Your task to perform on an android device: find snoozed emails in the gmail app Image 0: 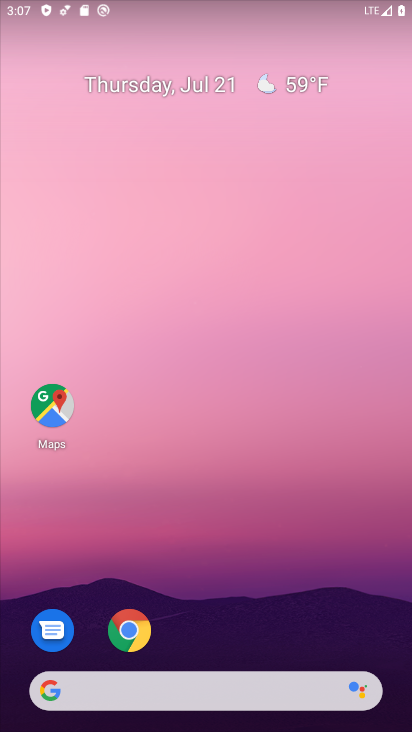
Step 0: click (218, 129)
Your task to perform on an android device: find snoozed emails in the gmail app Image 1: 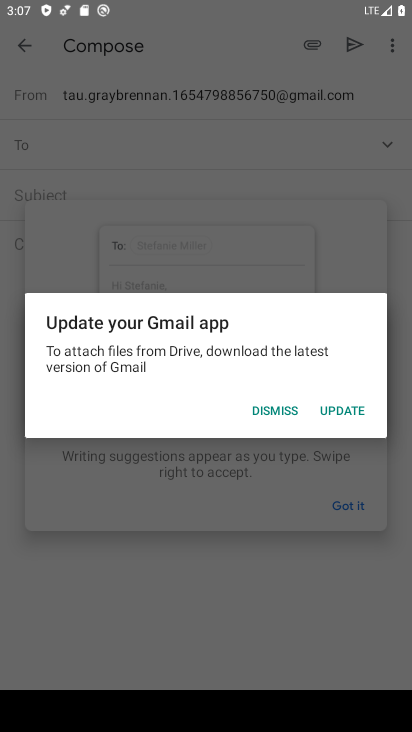
Step 1: click (274, 412)
Your task to perform on an android device: find snoozed emails in the gmail app Image 2: 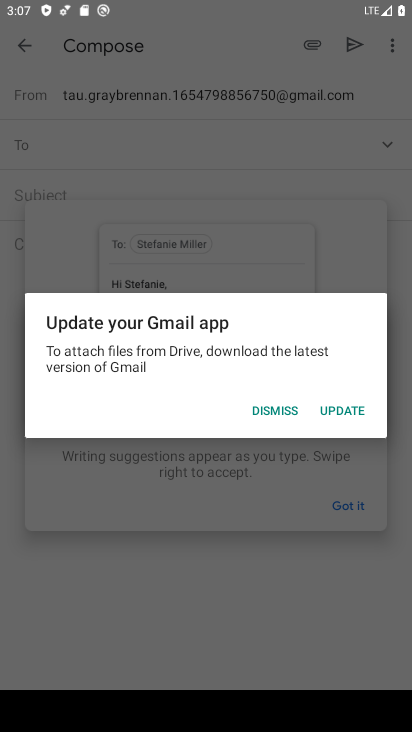
Step 2: click (274, 412)
Your task to perform on an android device: find snoozed emails in the gmail app Image 3: 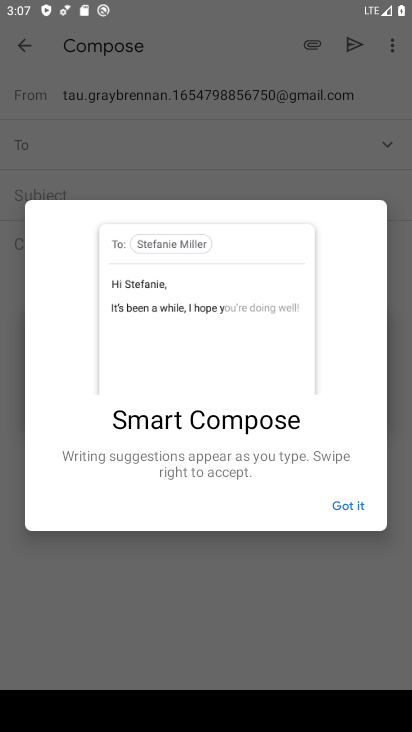
Step 3: click (350, 501)
Your task to perform on an android device: find snoozed emails in the gmail app Image 4: 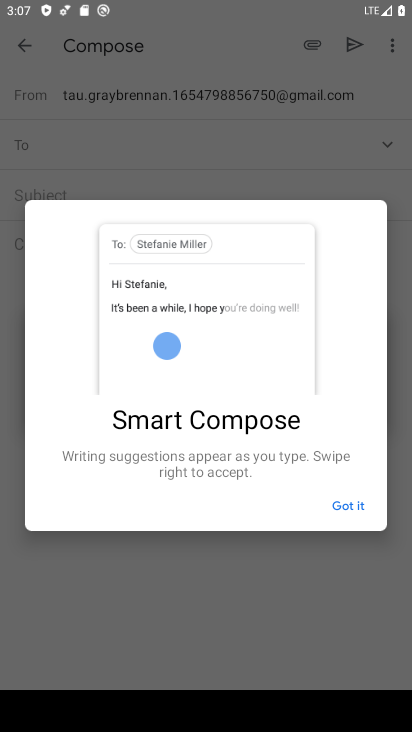
Step 4: click (355, 498)
Your task to perform on an android device: find snoozed emails in the gmail app Image 5: 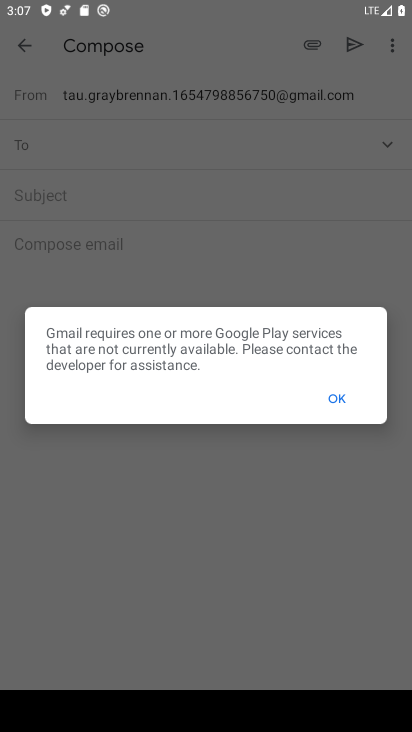
Step 5: click (26, 50)
Your task to perform on an android device: find snoozed emails in the gmail app Image 6: 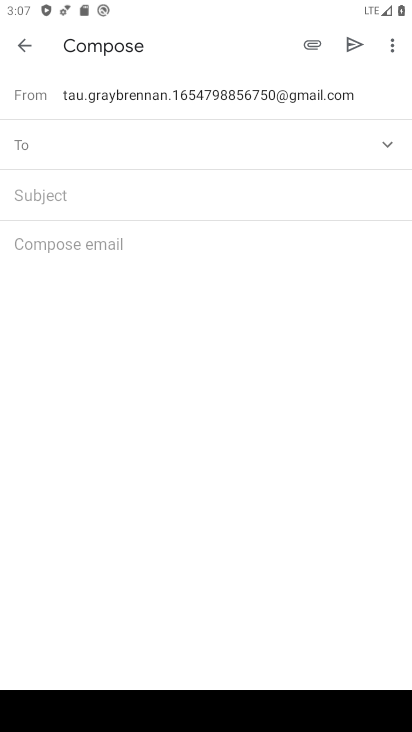
Step 6: click (341, 395)
Your task to perform on an android device: find snoozed emails in the gmail app Image 7: 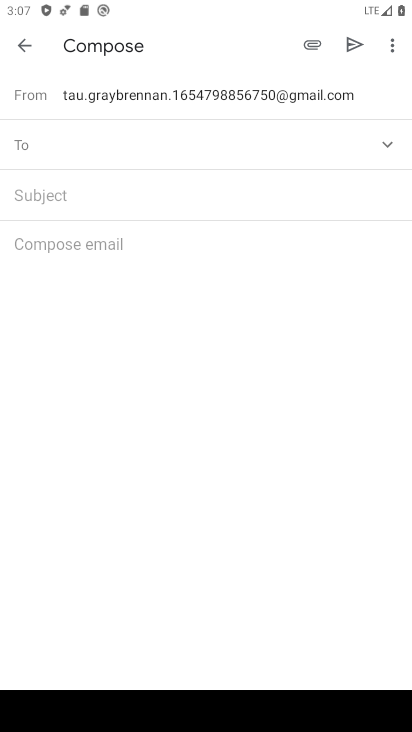
Step 7: click (13, 11)
Your task to perform on an android device: find snoozed emails in the gmail app Image 8: 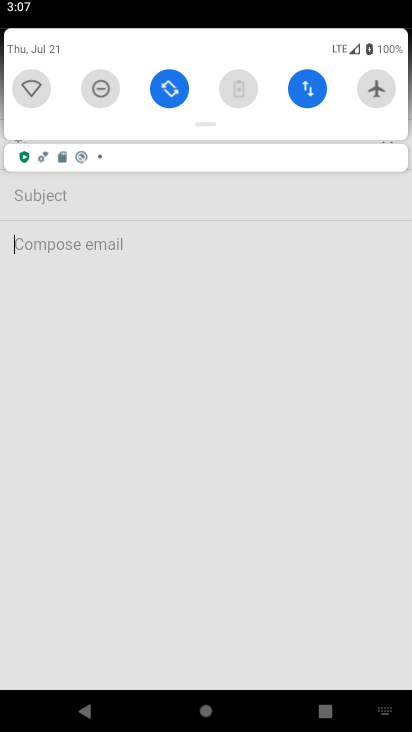
Step 8: click (25, 39)
Your task to perform on an android device: find snoozed emails in the gmail app Image 9: 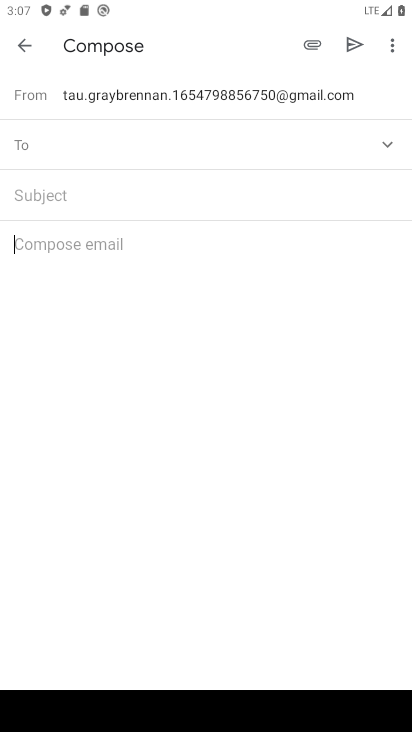
Step 9: click (23, 38)
Your task to perform on an android device: find snoozed emails in the gmail app Image 10: 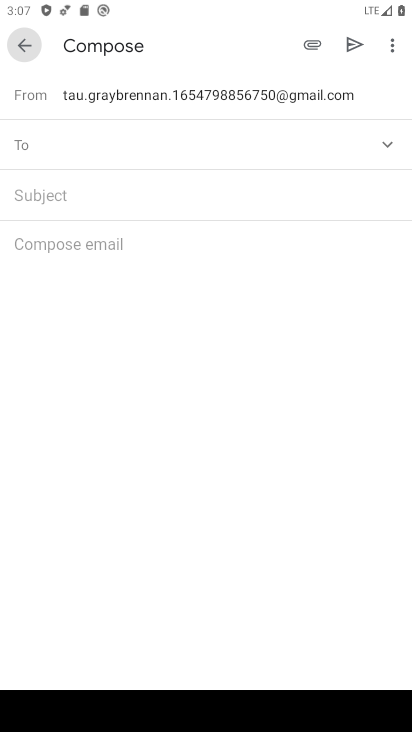
Step 10: click (23, 38)
Your task to perform on an android device: find snoozed emails in the gmail app Image 11: 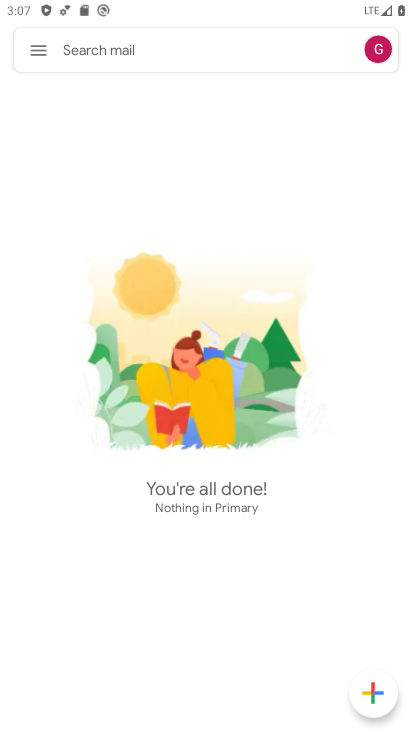
Step 11: click (31, 46)
Your task to perform on an android device: find snoozed emails in the gmail app Image 12: 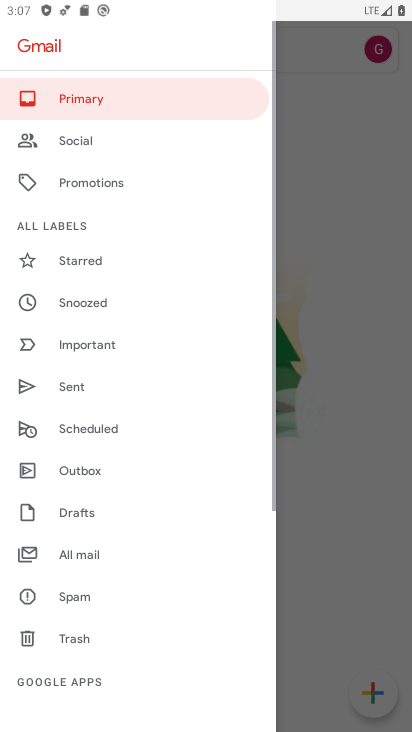
Step 12: drag from (27, 48) to (95, 298)
Your task to perform on an android device: find snoozed emails in the gmail app Image 13: 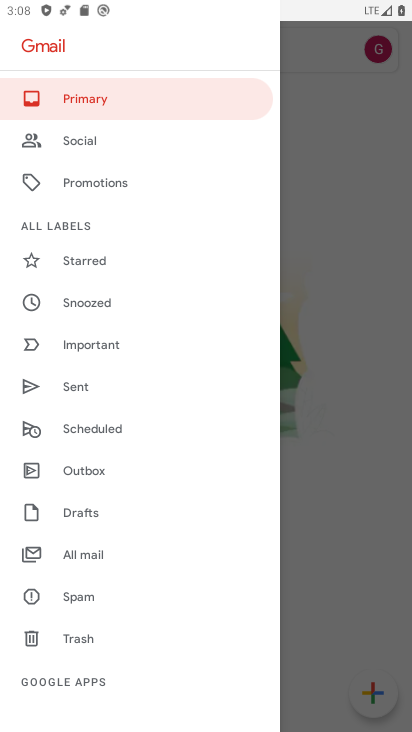
Step 13: click (80, 301)
Your task to perform on an android device: find snoozed emails in the gmail app Image 14: 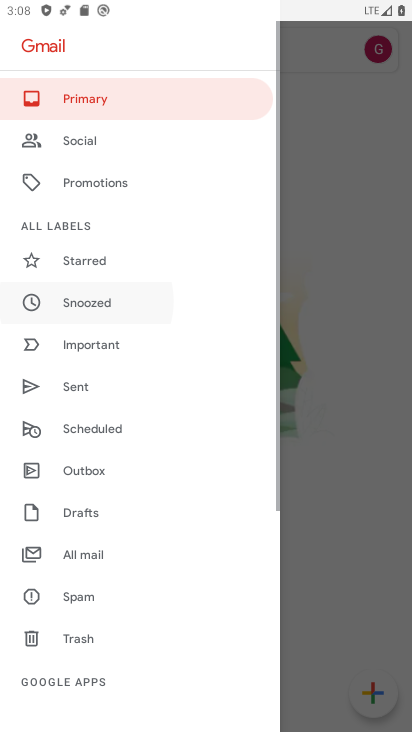
Step 14: click (80, 293)
Your task to perform on an android device: find snoozed emails in the gmail app Image 15: 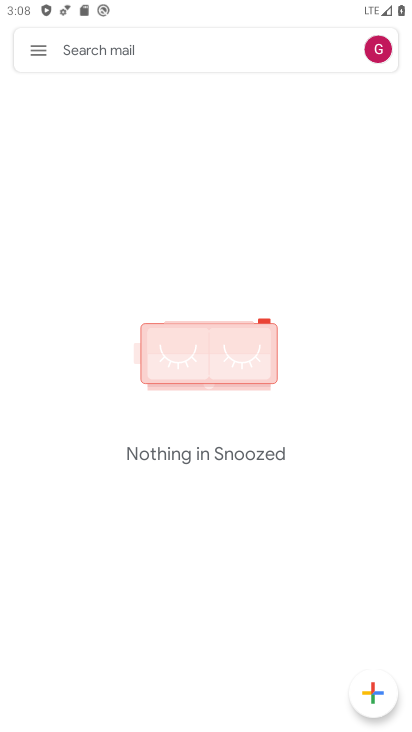
Step 15: task complete